Your task to perform on an android device: delete browsing data in the chrome app Image 0: 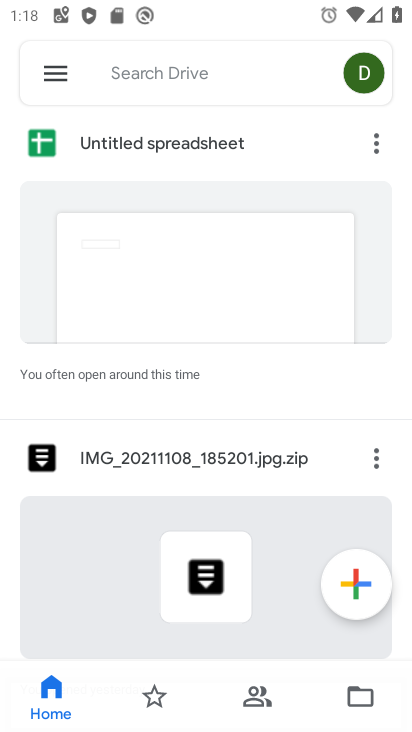
Step 0: press home button
Your task to perform on an android device: delete browsing data in the chrome app Image 1: 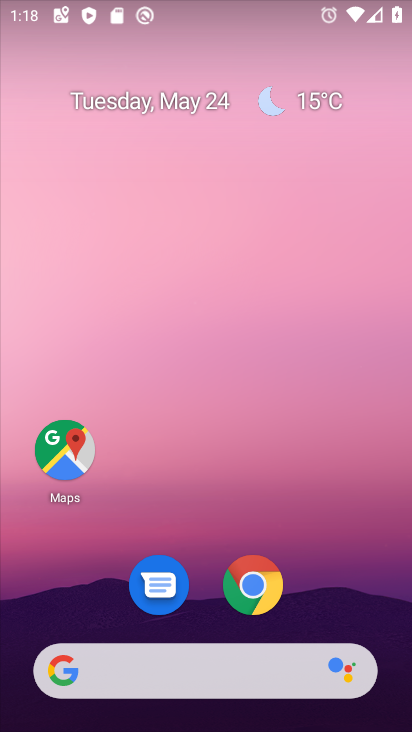
Step 1: click (254, 586)
Your task to perform on an android device: delete browsing data in the chrome app Image 2: 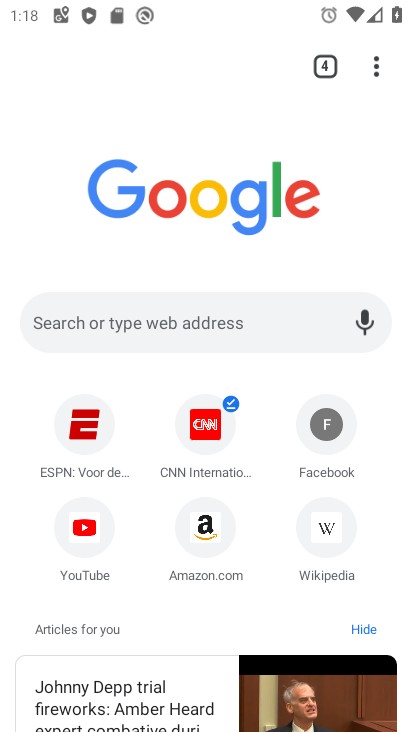
Step 2: click (366, 64)
Your task to perform on an android device: delete browsing data in the chrome app Image 3: 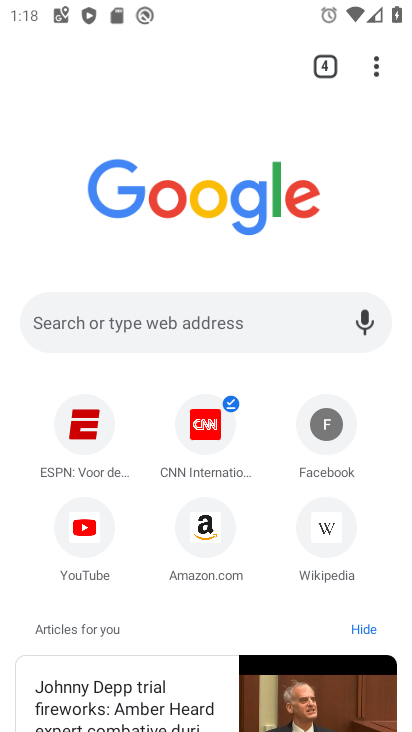
Step 3: click (366, 64)
Your task to perform on an android device: delete browsing data in the chrome app Image 4: 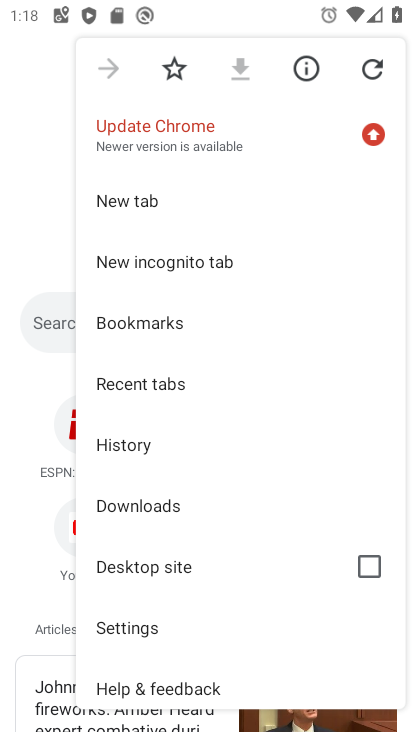
Step 4: click (156, 445)
Your task to perform on an android device: delete browsing data in the chrome app Image 5: 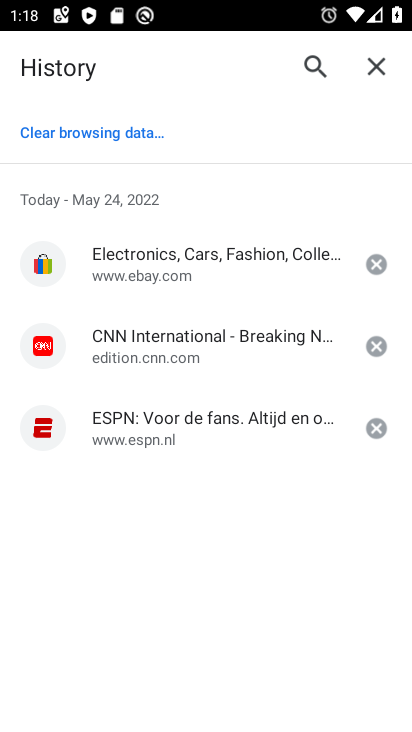
Step 5: click (137, 132)
Your task to perform on an android device: delete browsing data in the chrome app Image 6: 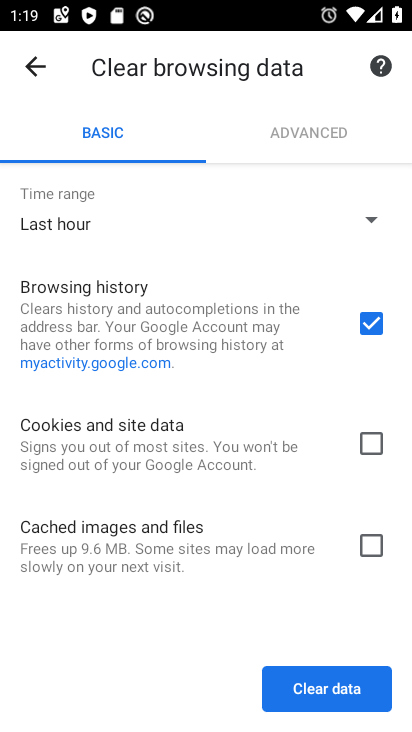
Step 6: click (365, 439)
Your task to perform on an android device: delete browsing data in the chrome app Image 7: 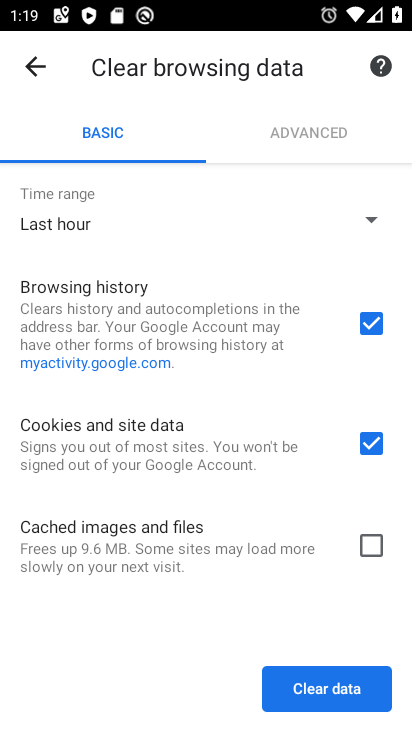
Step 7: click (374, 546)
Your task to perform on an android device: delete browsing data in the chrome app Image 8: 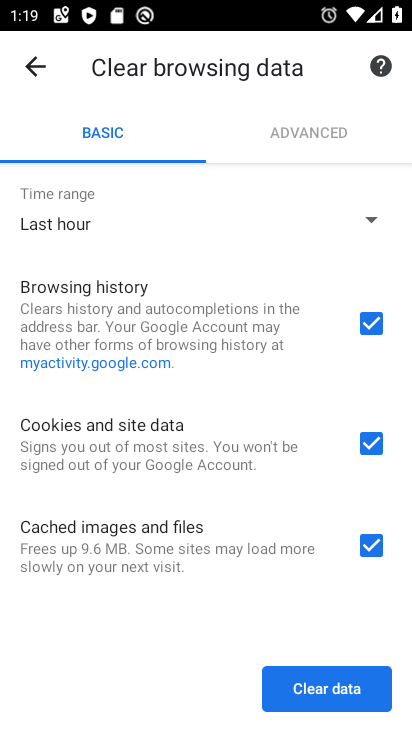
Step 8: click (359, 695)
Your task to perform on an android device: delete browsing data in the chrome app Image 9: 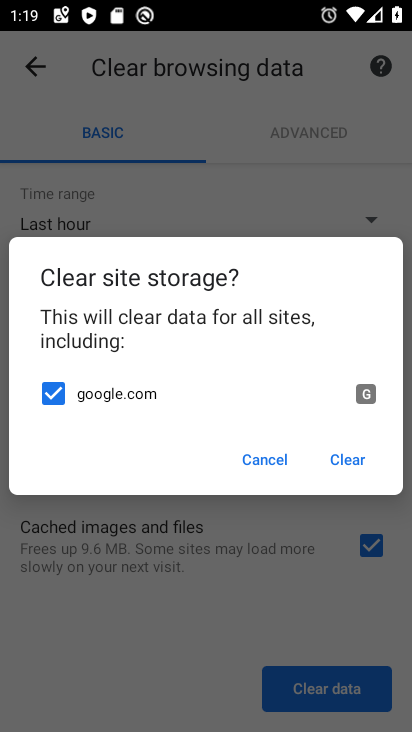
Step 9: click (339, 458)
Your task to perform on an android device: delete browsing data in the chrome app Image 10: 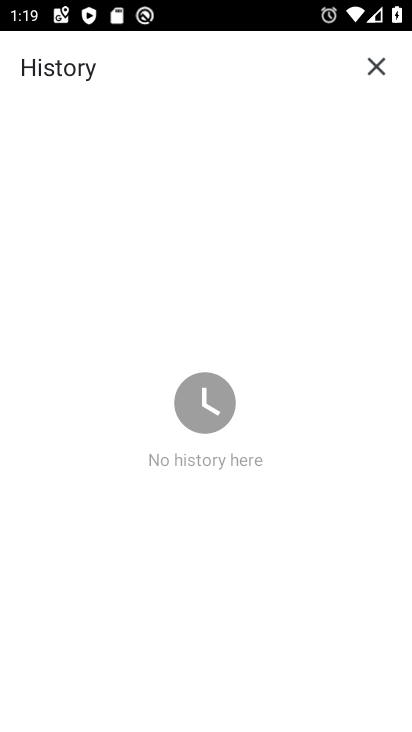
Step 10: task complete